Your task to perform on an android device: toggle priority inbox in the gmail app Image 0: 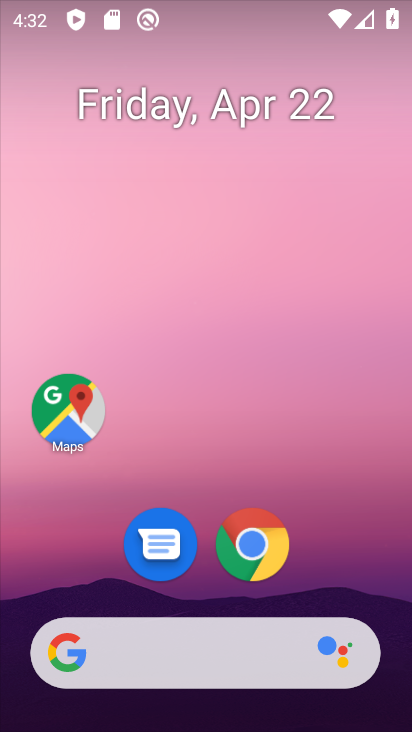
Step 0: drag from (161, 583) to (179, 255)
Your task to perform on an android device: toggle priority inbox in the gmail app Image 1: 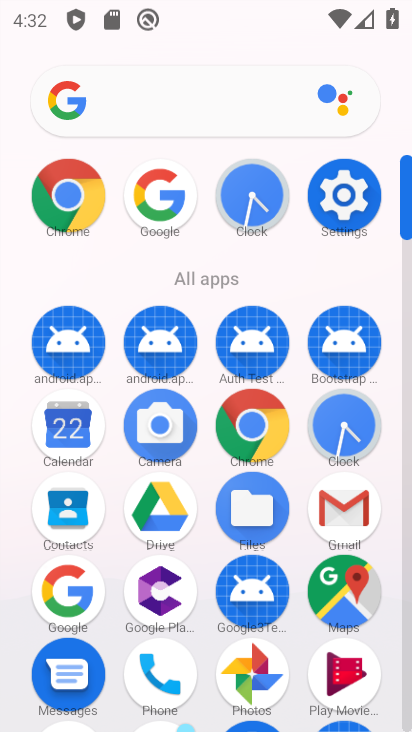
Step 1: click (360, 502)
Your task to perform on an android device: toggle priority inbox in the gmail app Image 2: 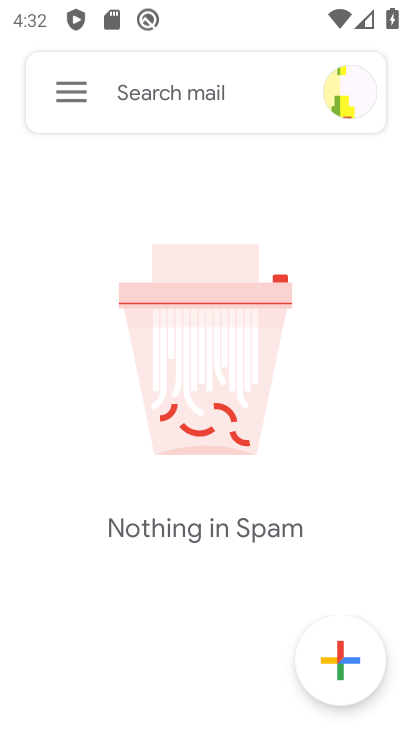
Step 2: click (65, 86)
Your task to perform on an android device: toggle priority inbox in the gmail app Image 3: 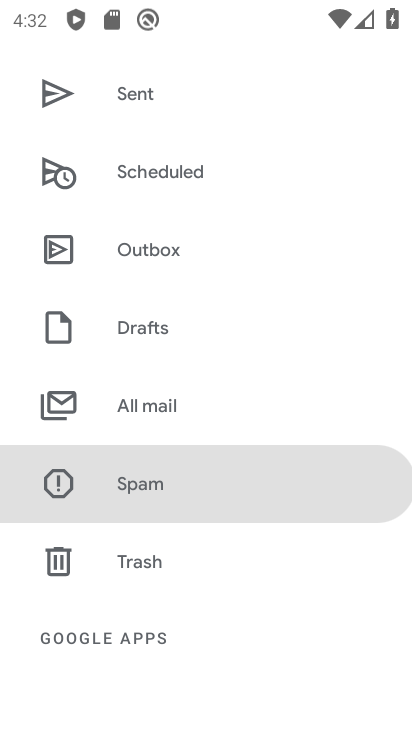
Step 3: drag from (152, 680) to (182, 352)
Your task to perform on an android device: toggle priority inbox in the gmail app Image 4: 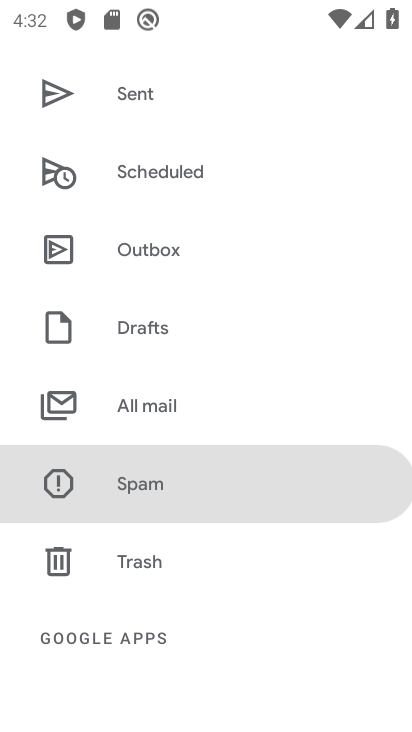
Step 4: drag from (173, 594) to (173, 298)
Your task to perform on an android device: toggle priority inbox in the gmail app Image 5: 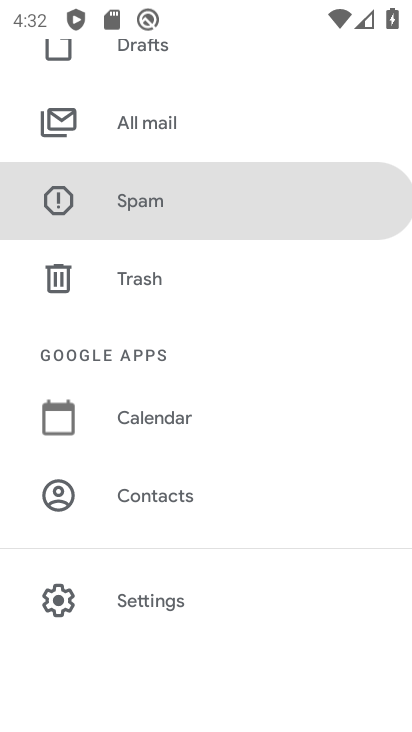
Step 5: click (159, 596)
Your task to perform on an android device: toggle priority inbox in the gmail app Image 6: 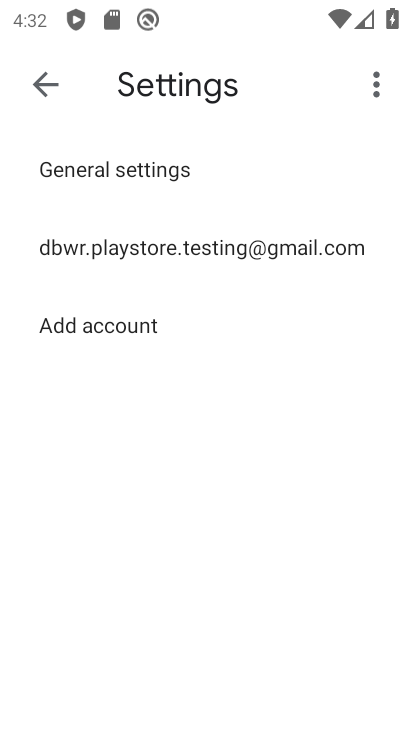
Step 6: click (110, 267)
Your task to perform on an android device: toggle priority inbox in the gmail app Image 7: 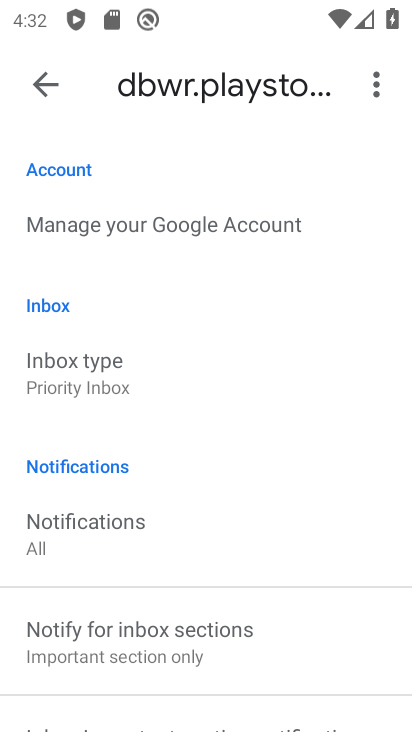
Step 7: click (76, 361)
Your task to perform on an android device: toggle priority inbox in the gmail app Image 8: 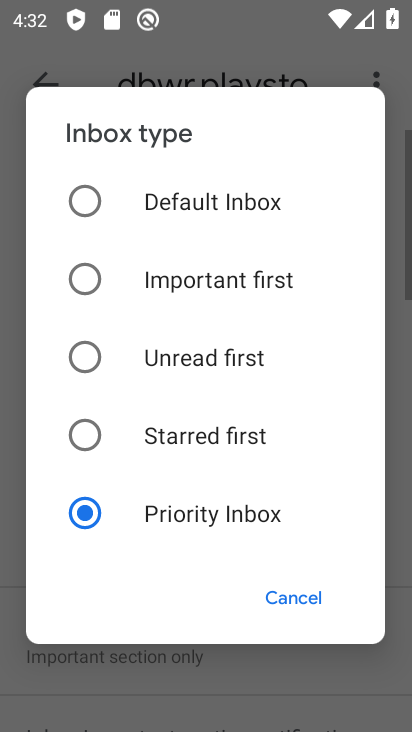
Step 8: click (151, 355)
Your task to perform on an android device: toggle priority inbox in the gmail app Image 9: 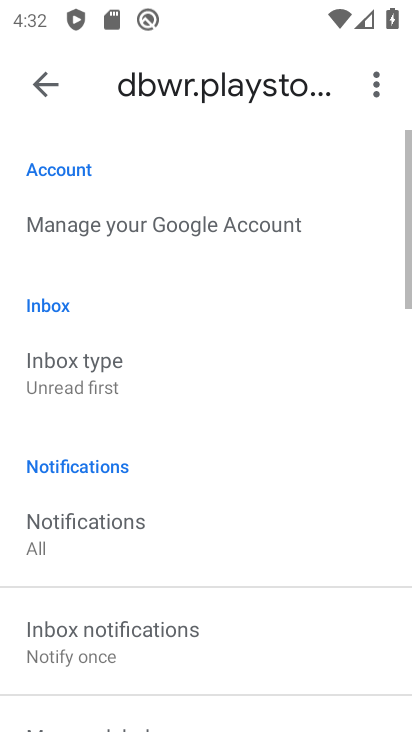
Step 9: task complete